Your task to perform on an android device: Go to Maps Image 0: 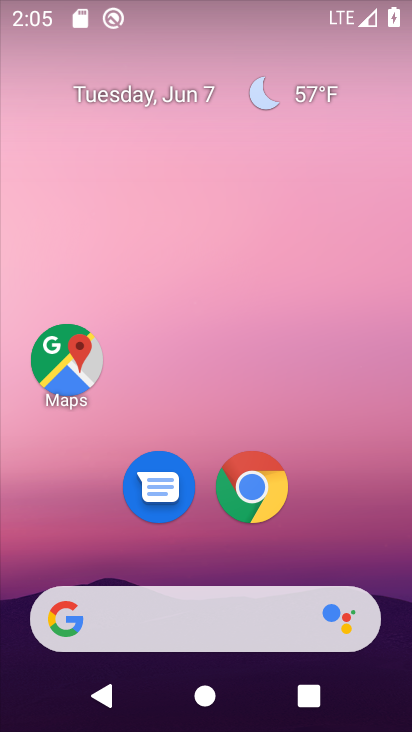
Step 0: drag from (214, 558) to (257, 19)
Your task to perform on an android device: Go to Maps Image 1: 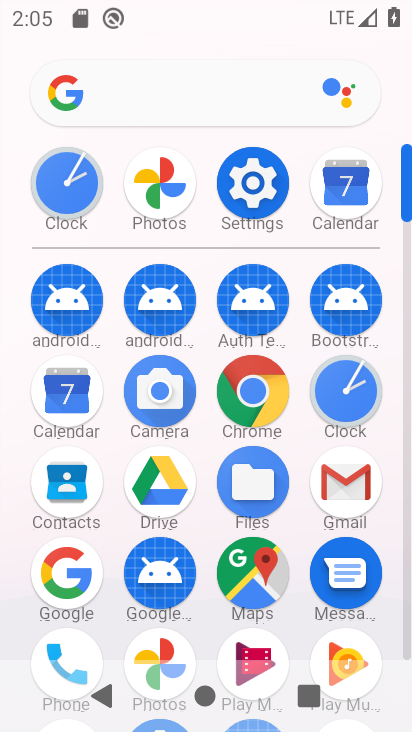
Step 1: click (242, 586)
Your task to perform on an android device: Go to Maps Image 2: 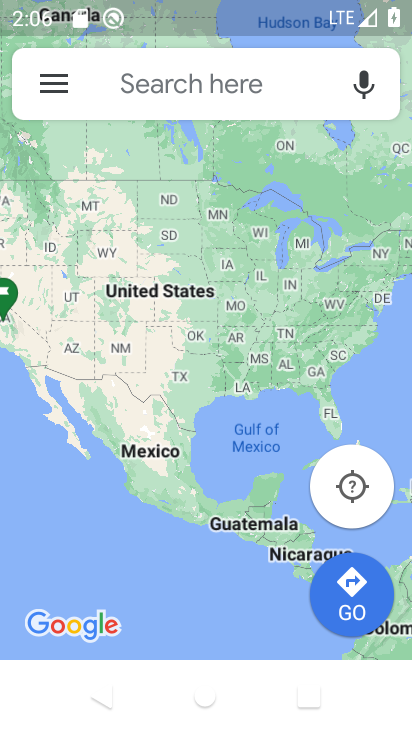
Step 2: task complete